Your task to perform on an android device: clear history in the chrome app Image 0: 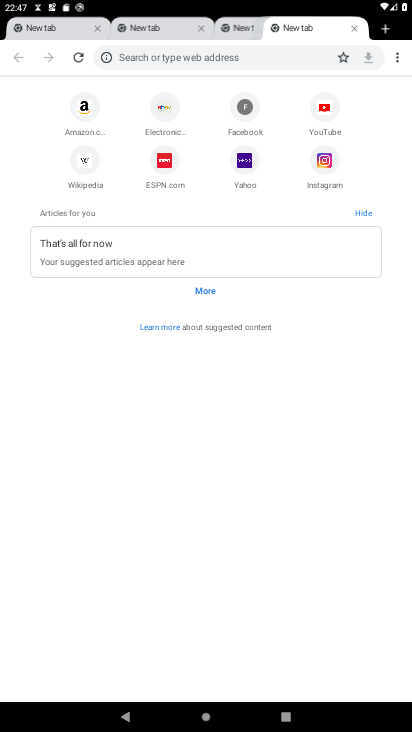
Step 0: click (408, 56)
Your task to perform on an android device: clear history in the chrome app Image 1: 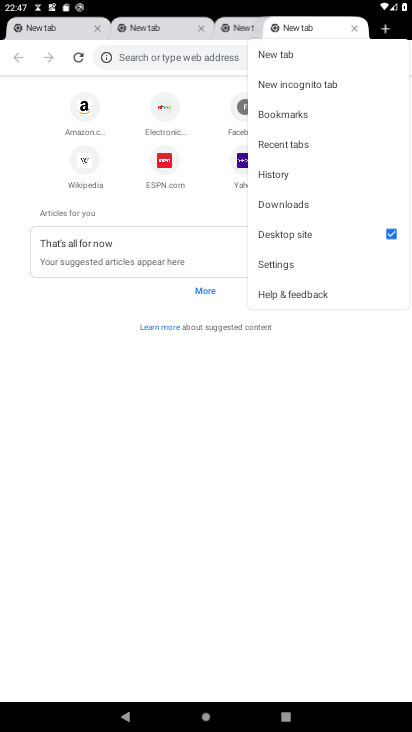
Step 1: click (281, 166)
Your task to perform on an android device: clear history in the chrome app Image 2: 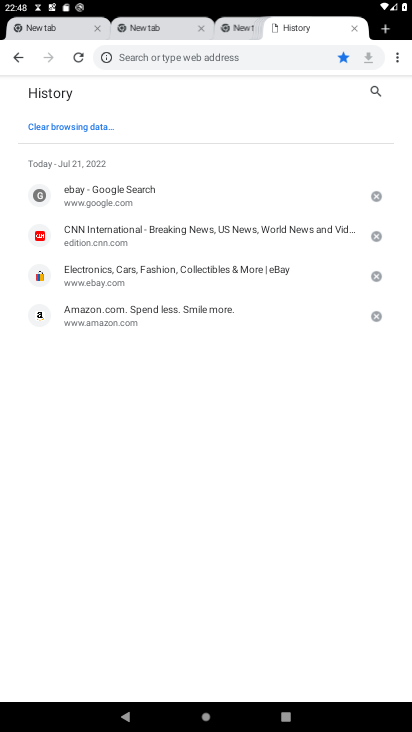
Step 2: click (88, 116)
Your task to perform on an android device: clear history in the chrome app Image 3: 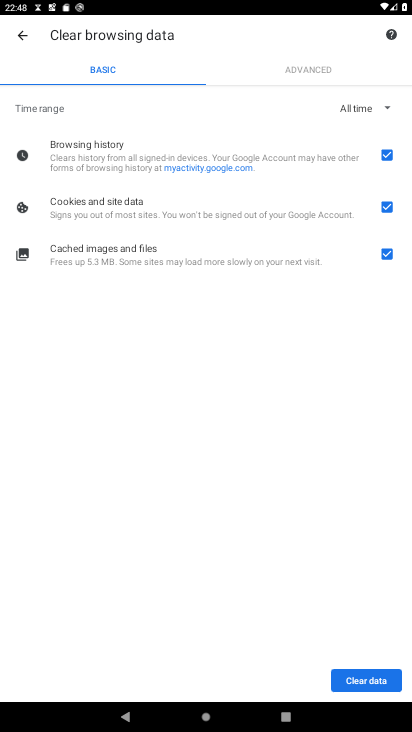
Step 3: click (359, 681)
Your task to perform on an android device: clear history in the chrome app Image 4: 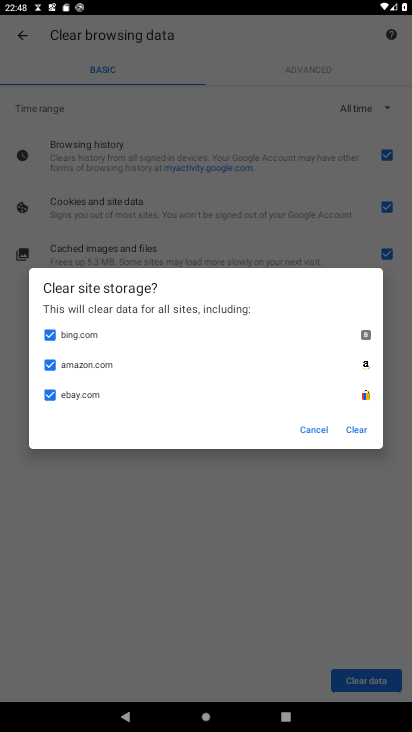
Step 4: click (363, 425)
Your task to perform on an android device: clear history in the chrome app Image 5: 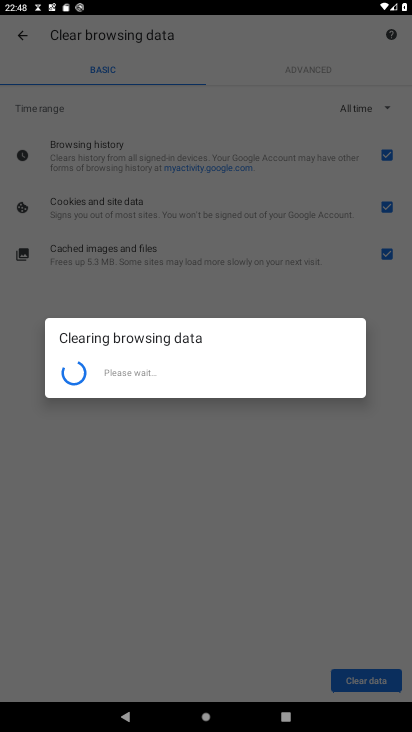
Step 5: task complete